Your task to perform on an android device: Open settings Image 0: 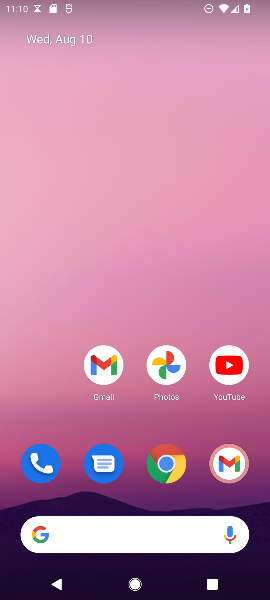
Step 0: drag from (22, 575) to (151, 224)
Your task to perform on an android device: Open settings Image 1: 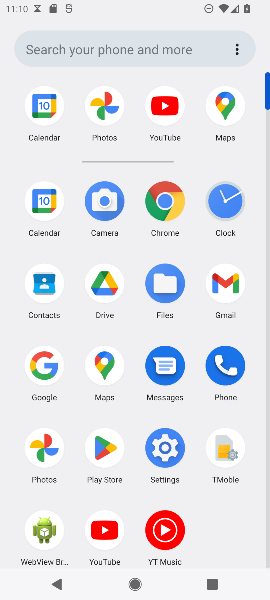
Step 1: click (157, 452)
Your task to perform on an android device: Open settings Image 2: 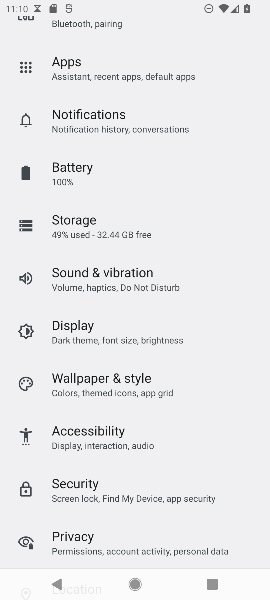
Step 2: task complete